Your task to perform on an android device: toggle data saver in the chrome app Image 0: 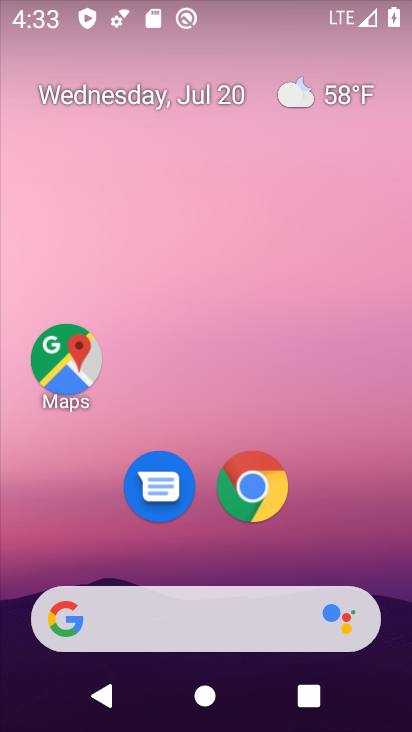
Step 0: click (260, 489)
Your task to perform on an android device: toggle data saver in the chrome app Image 1: 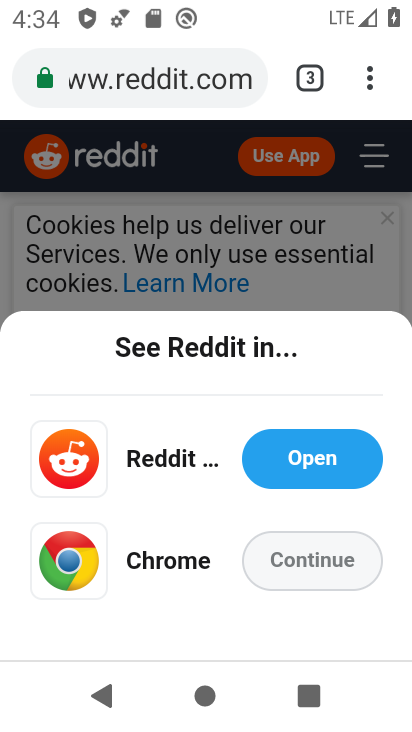
Step 1: drag from (363, 76) to (94, 547)
Your task to perform on an android device: toggle data saver in the chrome app Image 2: 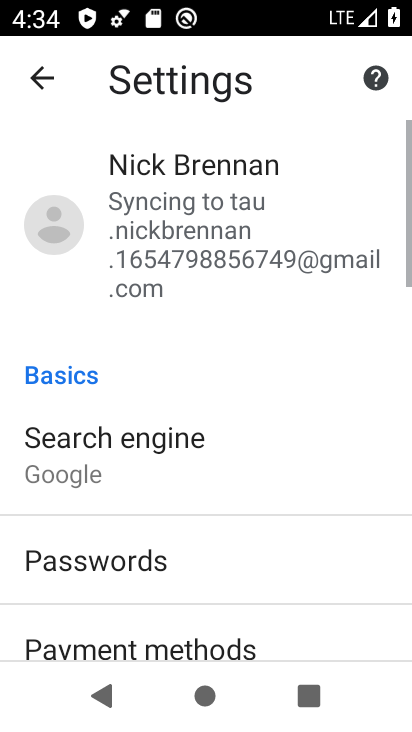
Step 2: drag from (163, 611) to (256, 112)
Your task to perform on an android device: toggle data saver in the chrome app Image 3: 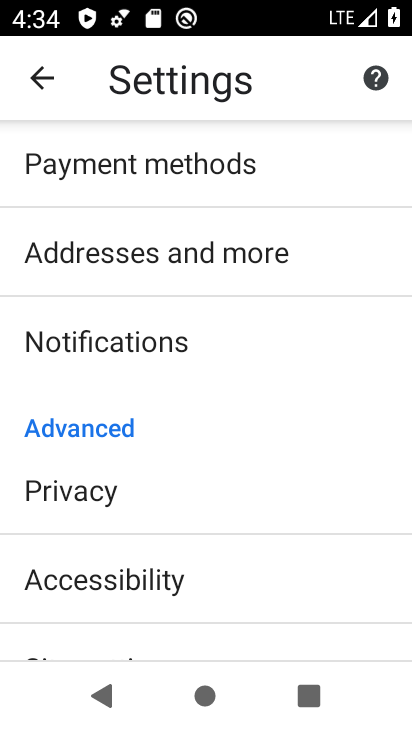
Step 3: drag from (154, 575) to (260, 75)
Your task to perform on an android device: toggle data saver in the chrome app Image 4: 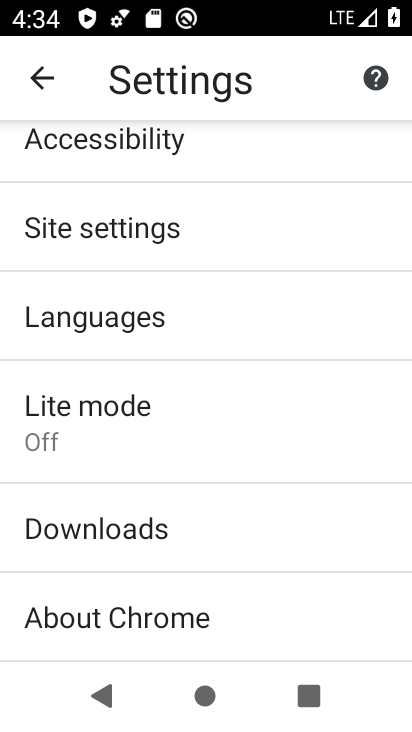
Step 4: click (108, 418)
Your task to perform on an android device: toggle data saver in the chrome app Image 5: 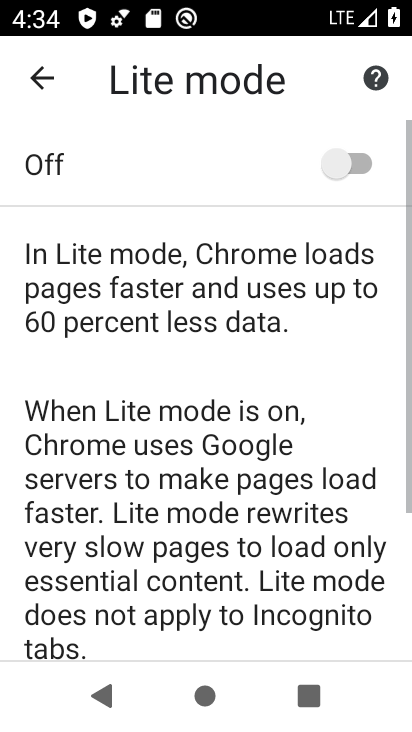
Step 5: click (343, 158)
Your task to perform on an android device: toggle data saver in the chrome app Image 6: 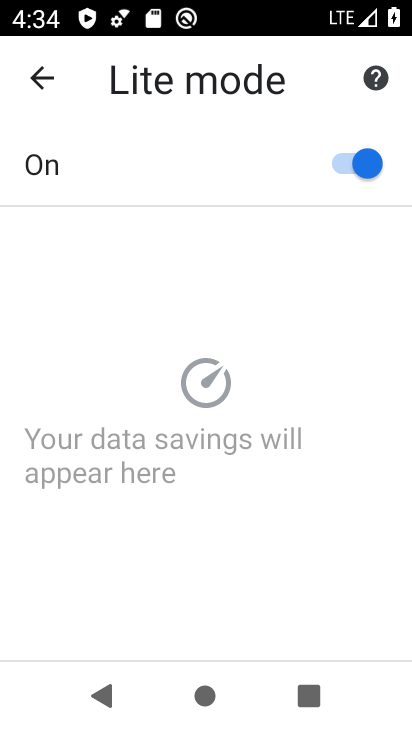
Step 6: task complete